Your task to perform on an android device: Go to Android settings Image 0: 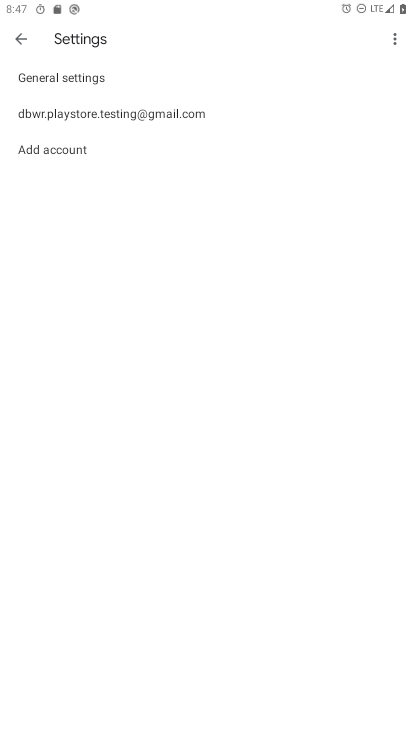
Step 0: press home button
Your task to perform on an android device: Go to Android settings Image 1: 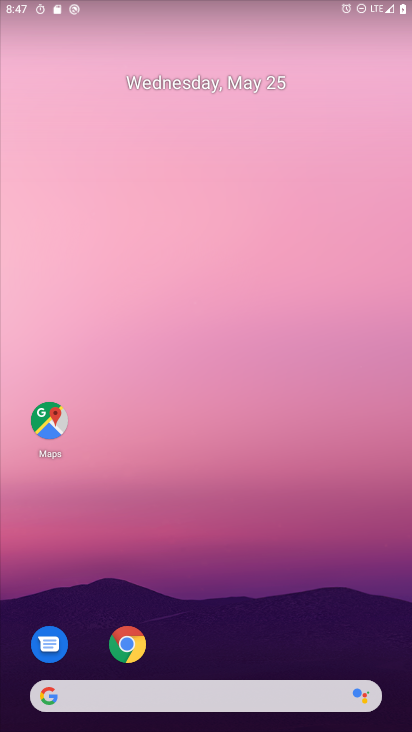
Step 1: drag from (381, 627) to (305, 136)
Your task to perform on an android device: Go to Android settings Image 2: 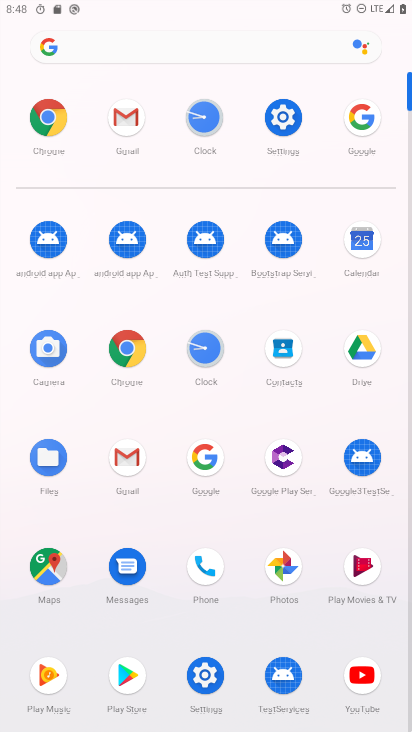
Step 2: click (196, 683)
Your task to perform on an android device: Go to Android settings Image 3: 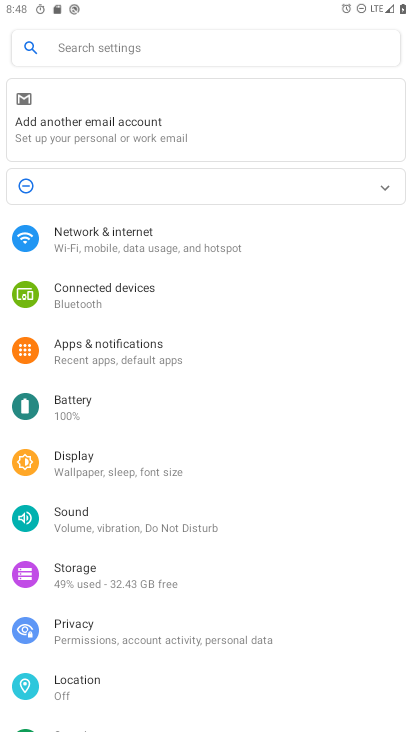
Step 3: drag from (128, 613) to (176, 125)
Your task to perform on an android device: Go to Android settings Image 4: 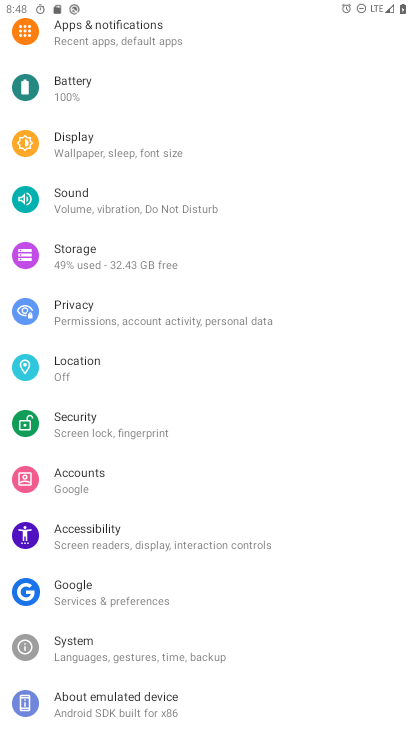
Step 4: click (125, 704)
Your task to perform on an android device: Go to Android settings Image 5: 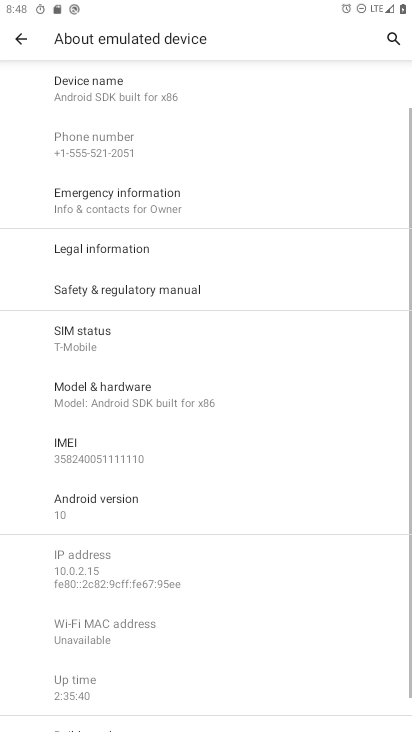
Step 5: click (165, 508)
Your task to perform on an android device: Go to Android settings Image 6: 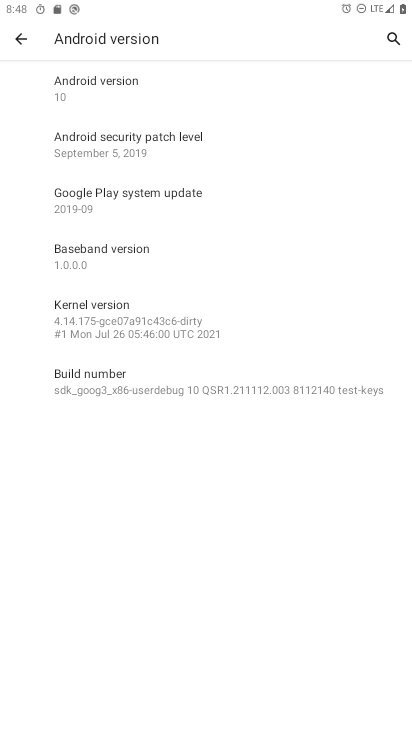
Step 6: task complete